Your task to perform on an android device: remove spam from my inbox in the gmail app Image 0: 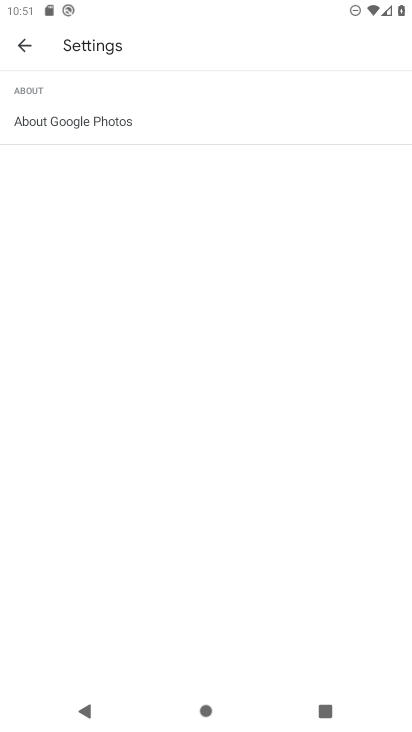
Step 0: click (131, 593)
Your task to perform on an android device: remove spam from my inbox in the gmail app Image 1: 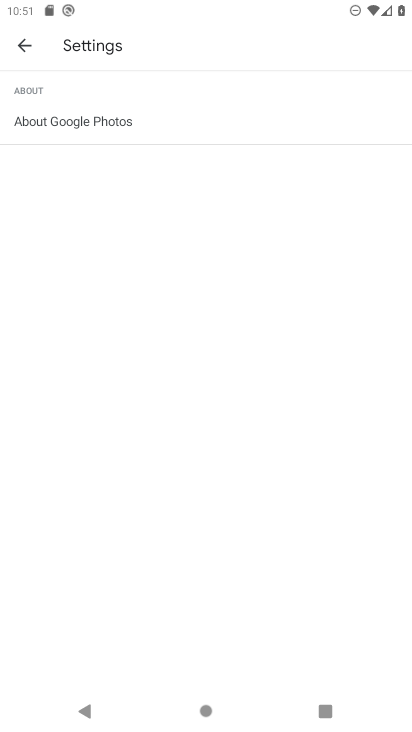
Step 1: press home button
Your task to perform on an android device: remove spam from my inbox in the gmail app Image 2: 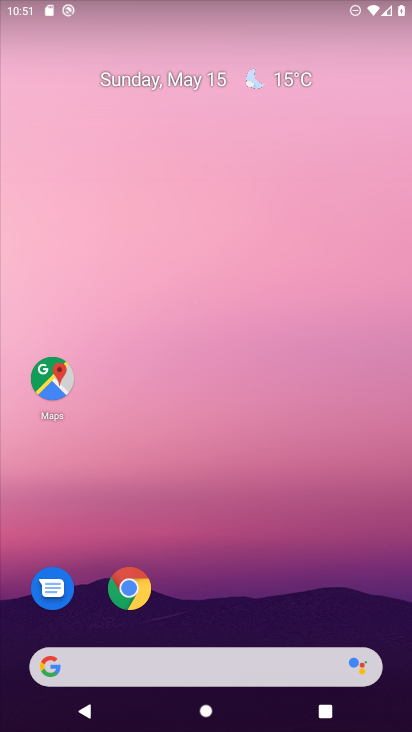
Step 2: drag from (209, 616) to (284, 39)
Your task to perform on an android device: remove spam from my inbox in the gmail app Image 3: 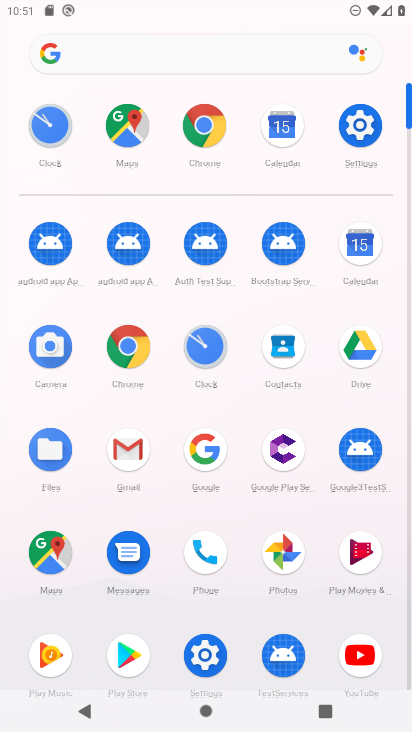
Step 3: click (137, 455)
Your task to perform on an android device: remove spam from my inbox in the gmail app Image 4: 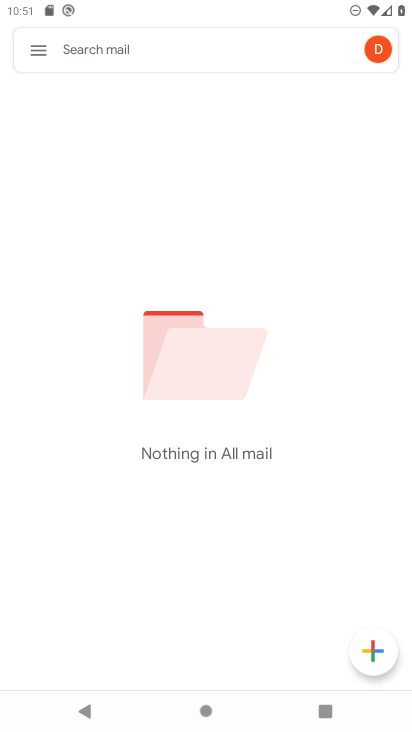
Step 4: click (38, 40)
Your task to perform on an android device: remove spam from my inbox in the gmail app Image 5: 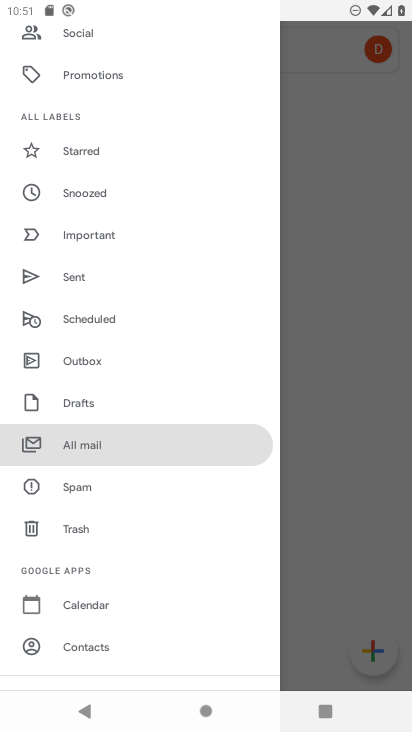
Step 5: drag from (74, 626) to (94, 555)
Your task to perform on an android device: remove spam from my inbox in the gmail app Image 6: 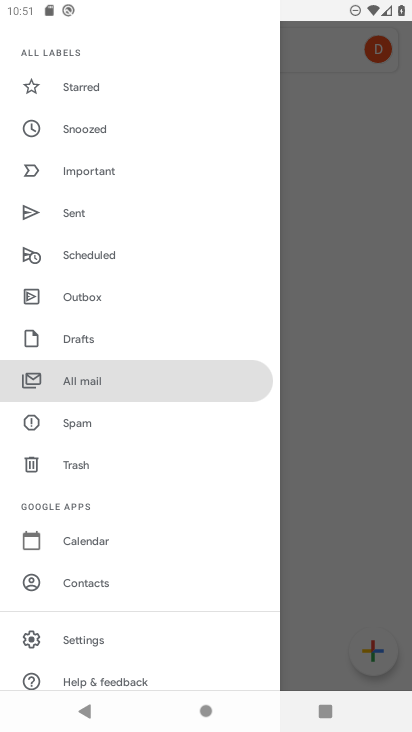
Step 6: click (71, 427)
Your task to perform on an android device: remove spam from my inbox in the gmail app Image 7: 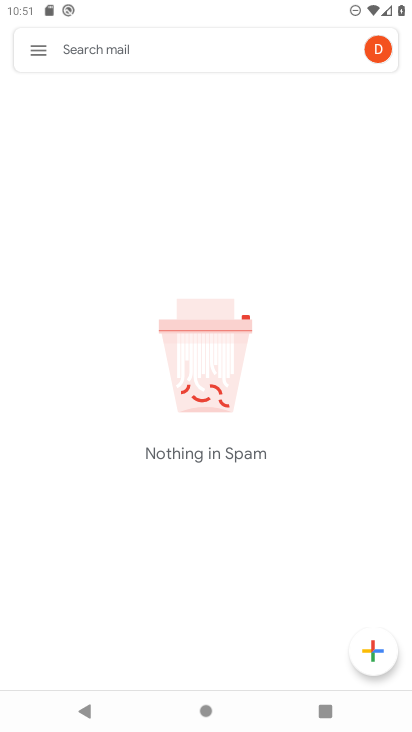
Step 7: task complete